Your task to perform on an android device: Open accessibility settings Image 0: 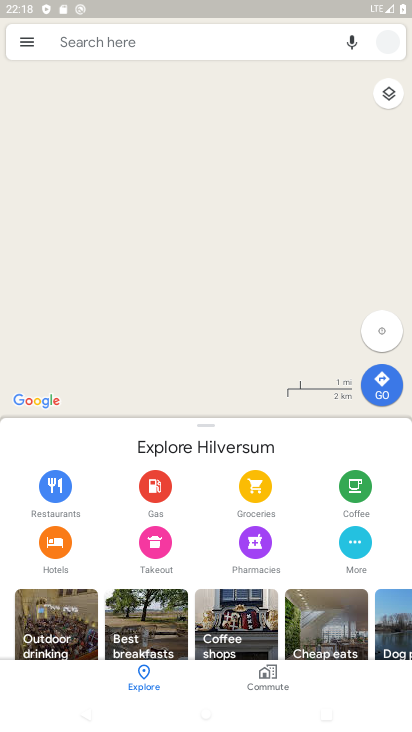
Step 0: press home button
Your task to perform on an android device: Open accessibility settings Image 1: 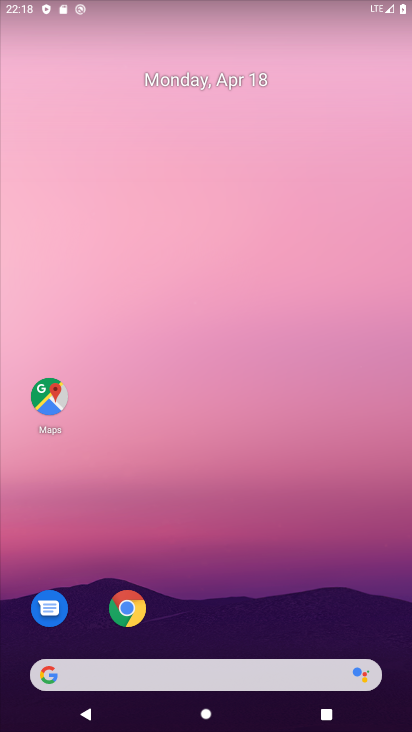
Step 1: drag from (201, 558) to (200, 49)
Your task to perform on an android device: Open accessibility settings Image 2: 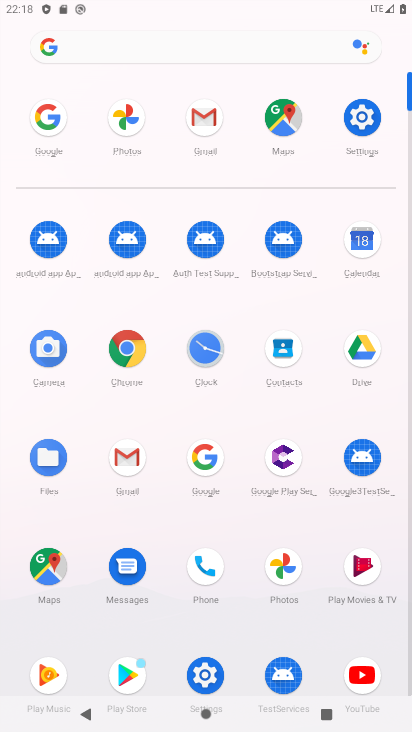
Step 2: click (366, 115)
Your task to perform on an android device: Open accessibility settings Image 3: 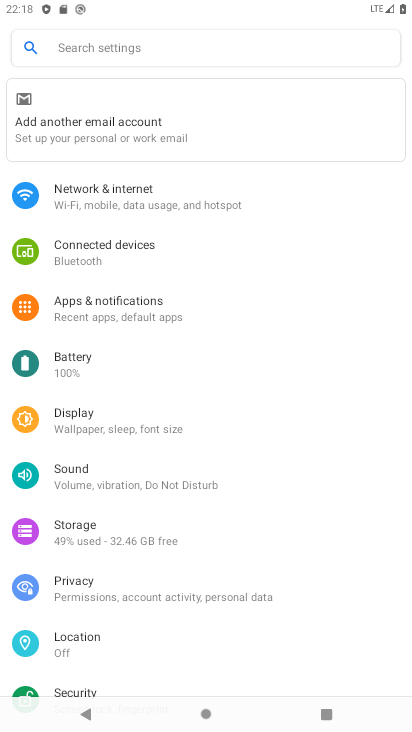
Step 3: drag from (172, 611) to (180, 255)
Your task to perform on an android device: Open accessibility settings Image 4: 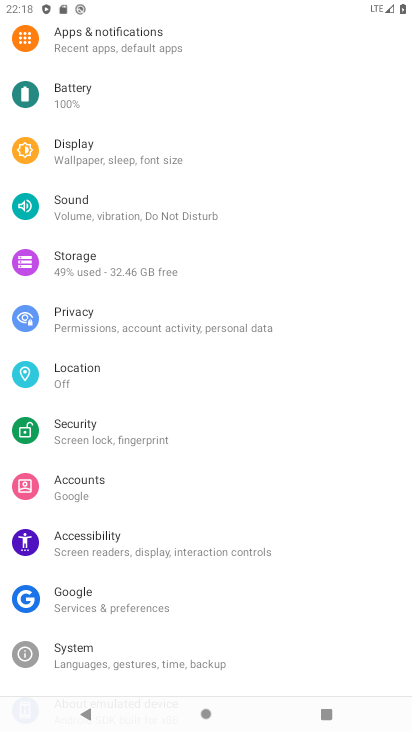
Step 4: click (144, 549)
Your task to perform on an android device: Open accessibility settings Image 5: 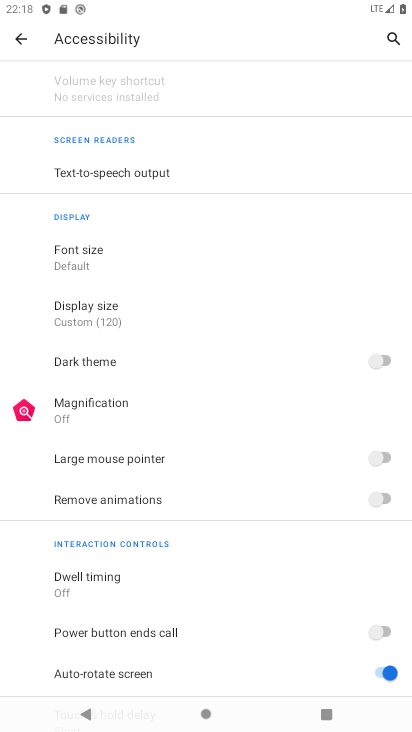
Step 5: task complete